Your task to perform on an android device: find photos in the google photos app Image 0: 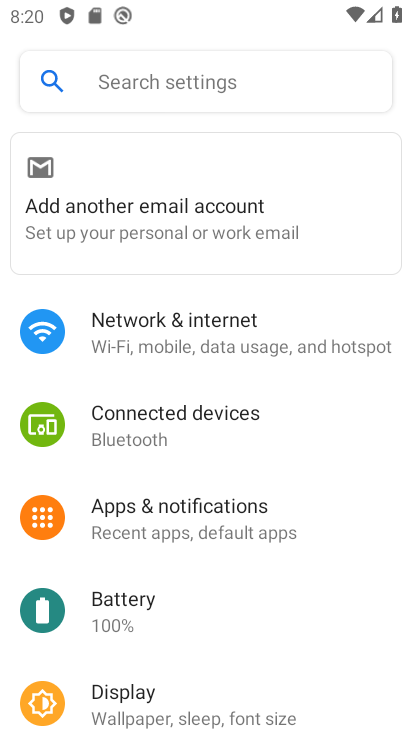
Step 0: press home button
Your task to perform on an android device: find photos in the google photos app Image 1: 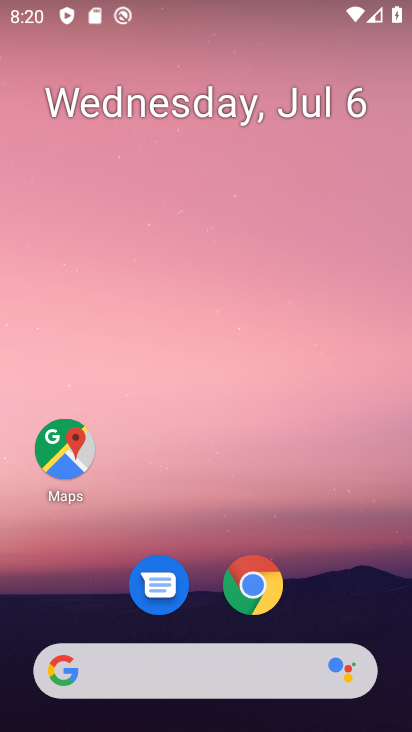
Step 1: drag from (235, 516) to (267, 1)
Your task to perform on an android device: find photos in the google photos app Image 2: 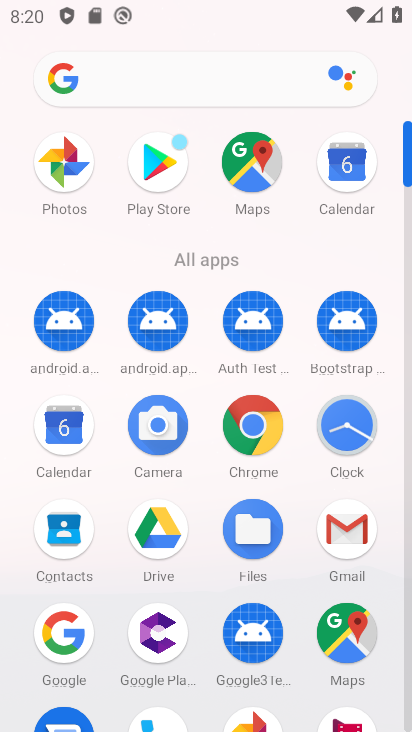
Step 2: click (69, 167)
Your task to perform on an android device: find photos in the google photos app Image 3: 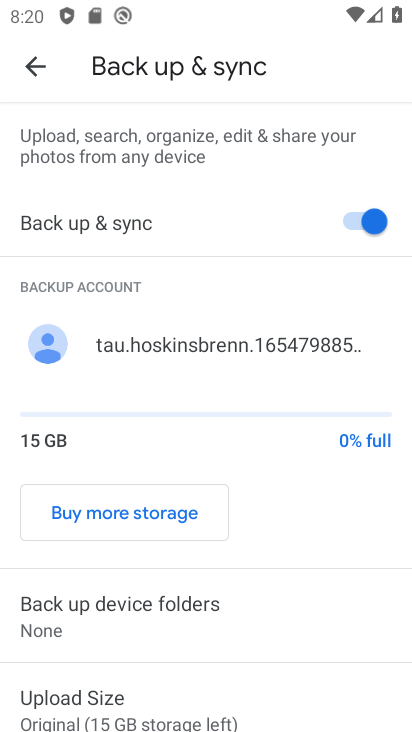
Step 3: click (43, 62)
Your task to perform on an android device: find photos in the google photos app Image 4: 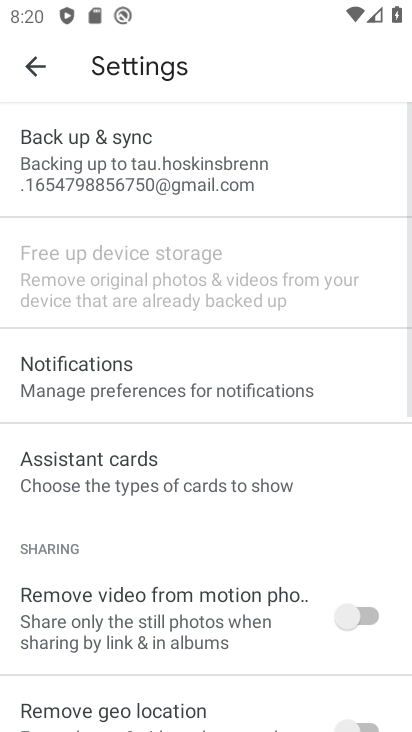
Step 4: click (31, 65)
Your task to perform on an android device: find photos in the google photos app Image 5: 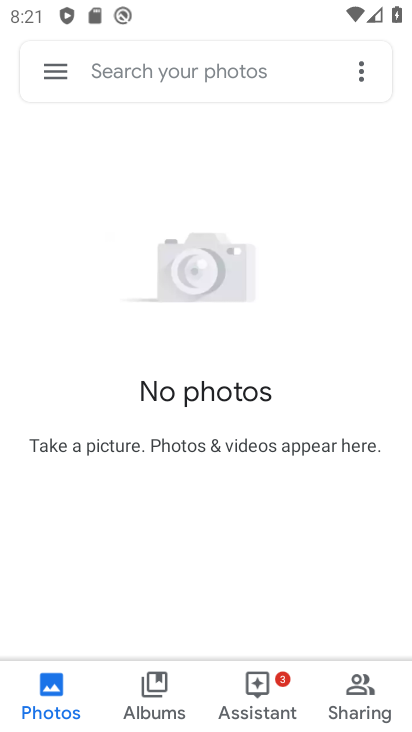
Step 5: task complete